Your task to perform on an android device: check storage Image 0: 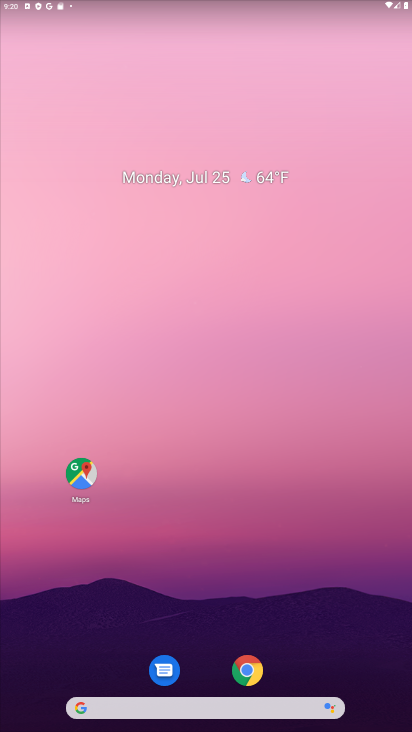
Step 0: drag from (335, 663) to (203, 32)
Your task to perform on an android device: check storage Image 1: 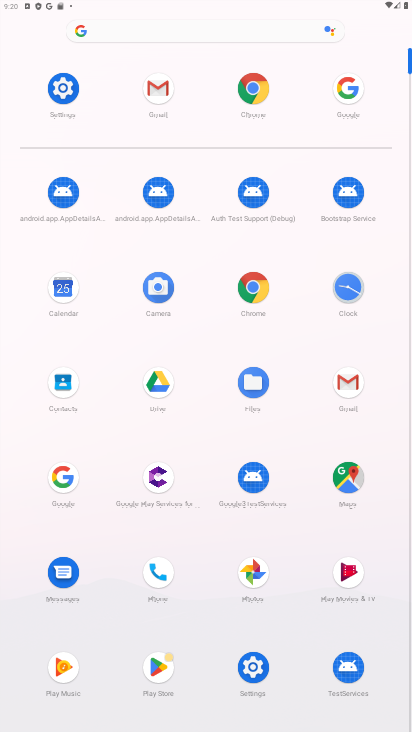
Step 1: click (250, 663)
Your task to perform on an android device: check storage Image 2: 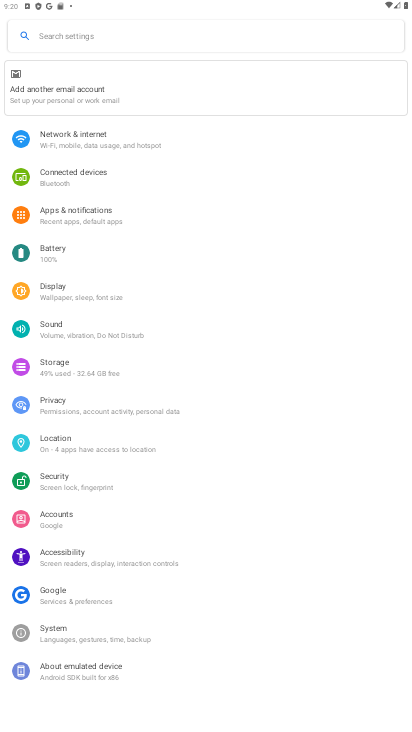
Step 2: click (64, 381)
Your task to perform on an android device: check storage Image 3: 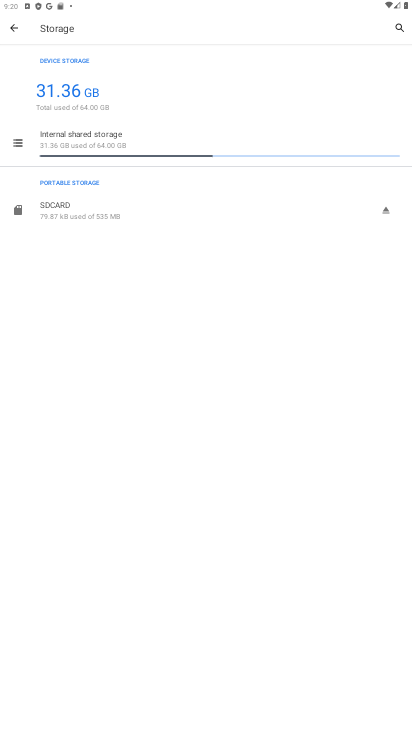
Step 3: click (134, 133)
Your task to perform on an android device: check storage Image 4: 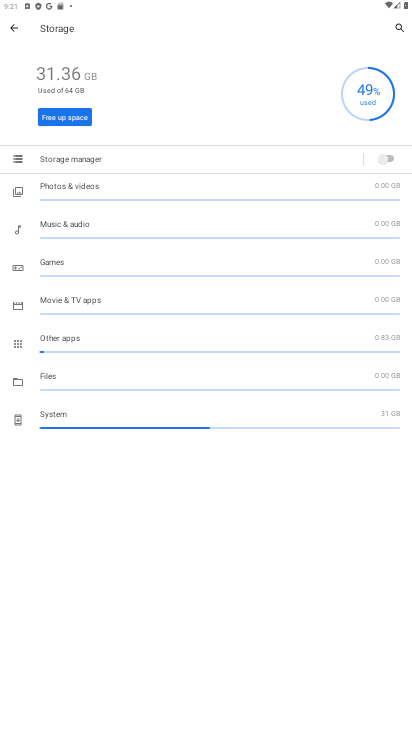
Step 4: task complete